Your task to perform on an android device: Search for Mexican restaurants on Maps Image 0: 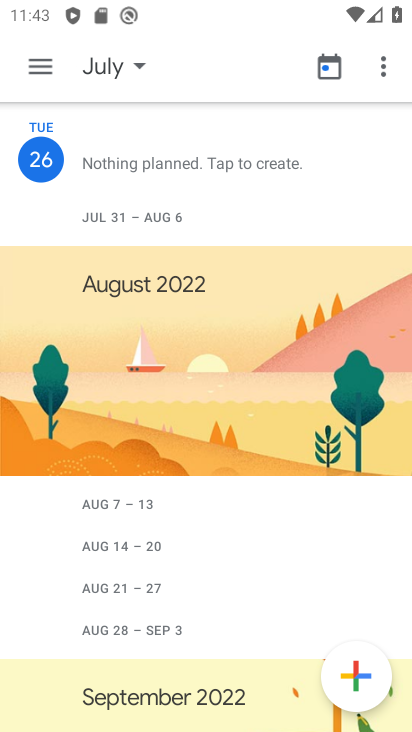
Step 0: press home button
Your task to perform on an android device: Search for Mexican restaurants on Maps Image 1: 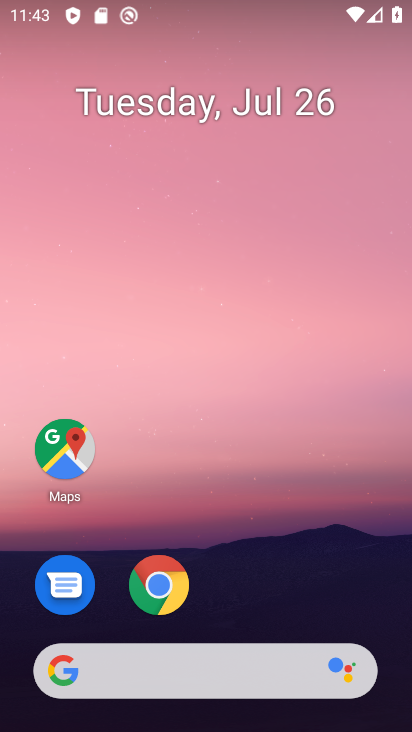
Step 1: click (61, 441)
Your task to perform on an android device: Search for Mexican restaurants on Maps Image 2: 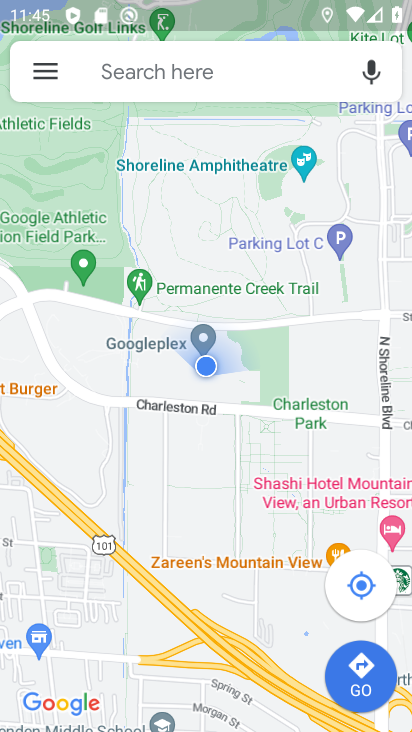
Step 2: click (186, 76)
Your task to perform on an android device: Search for Mexican restaurants on Maps Image 3: 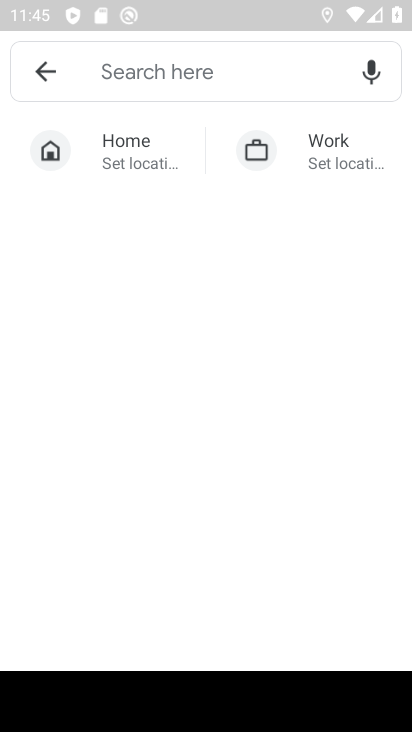
Step 3: click (41, 70)
Your task to perform on an android device: Search for Mexican restaurants on Maps Image 4: 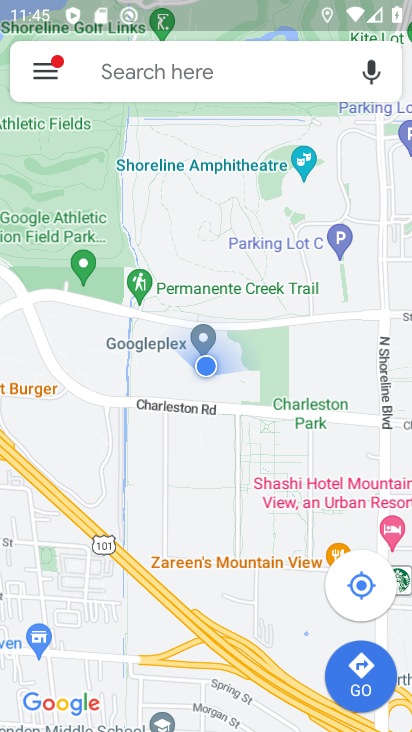
Step 4: click (134, 71)
Your task to perform on an android device: Search for Mexican restaurants on Maps Image 5: 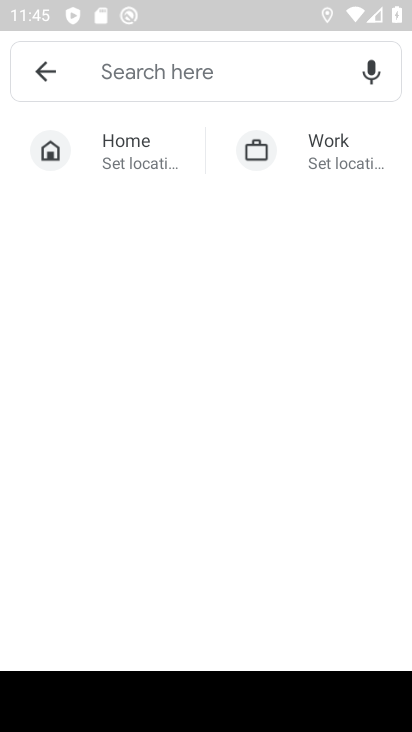
Step 5: type "Mexican restaurants"
Your task to perform on an android device: Search for Mexican restaurants on Maps Image 6: 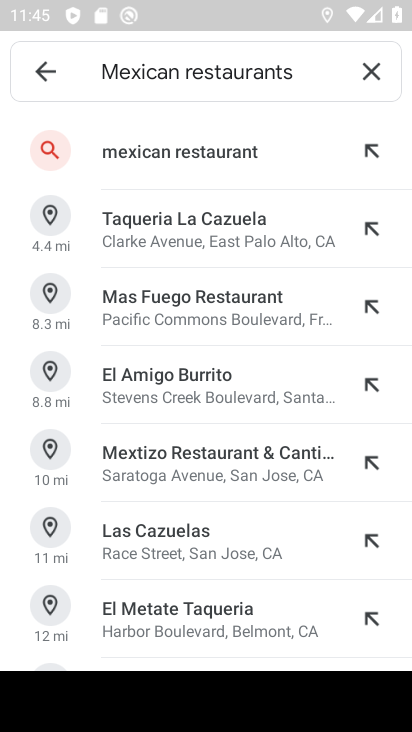
Step 6: click (192, 163)
Your task to perform on an android device: Search for Mexican restaurants on Maps Image 7: 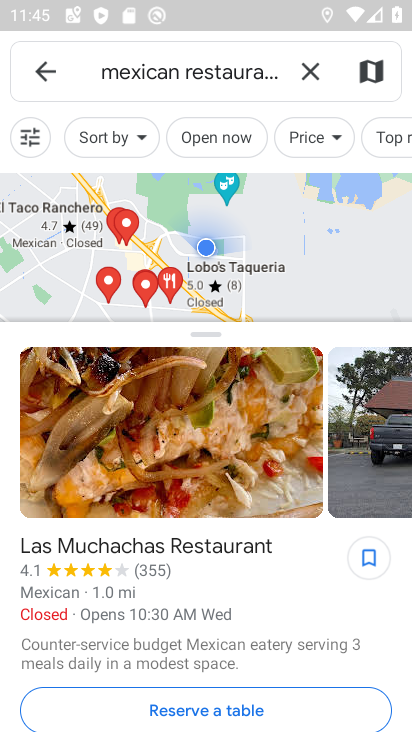
Step 7: task complete